Your task to perform on an android device: Go to notification settings Image 0: 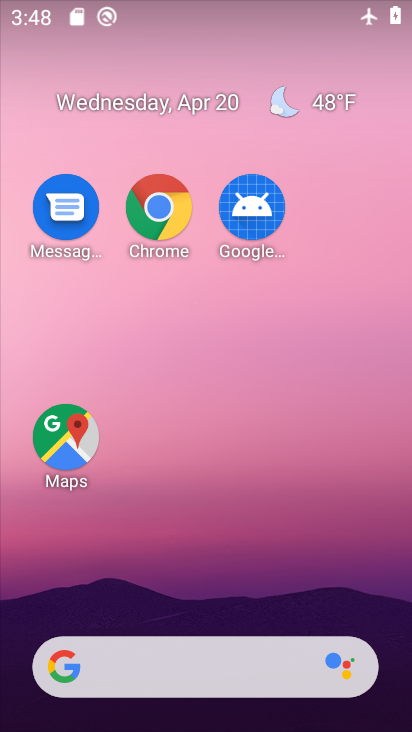
Step 0: drag from (319, 536) to (400, 36)
Your task to perform on an android device: Go to notification settings Image 1: 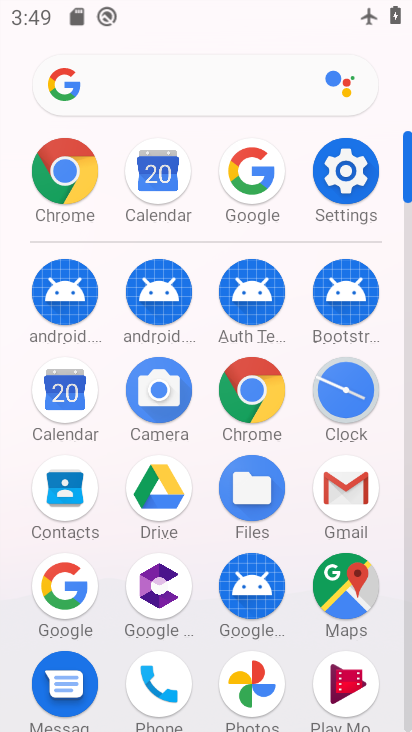
Step 1: click (343, 141)
Your task to perform on an android device: Go to notification settings Image 2: 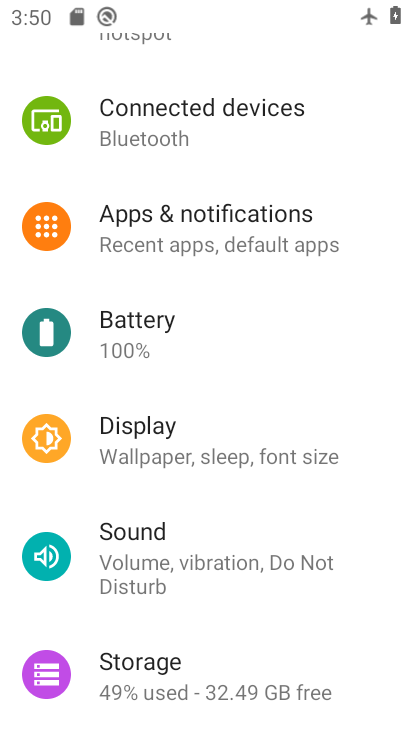
Step 2: click (301, 242)
Your task to perform on an android device: Go to notification settings Image 3: 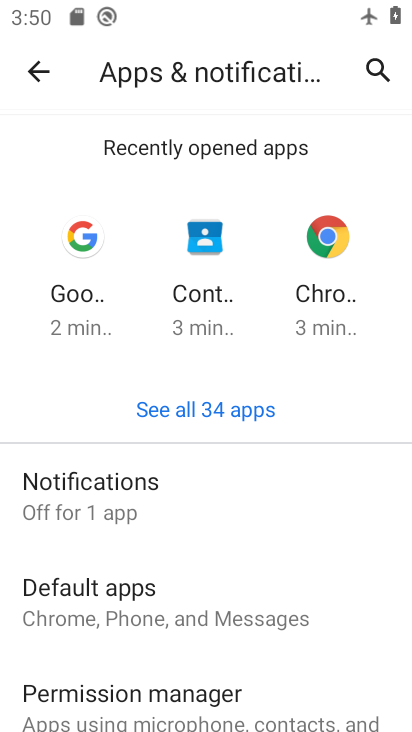
Step 3: click (197, 488)
Your task to perform on an android device: Go to notification settings Image 4: 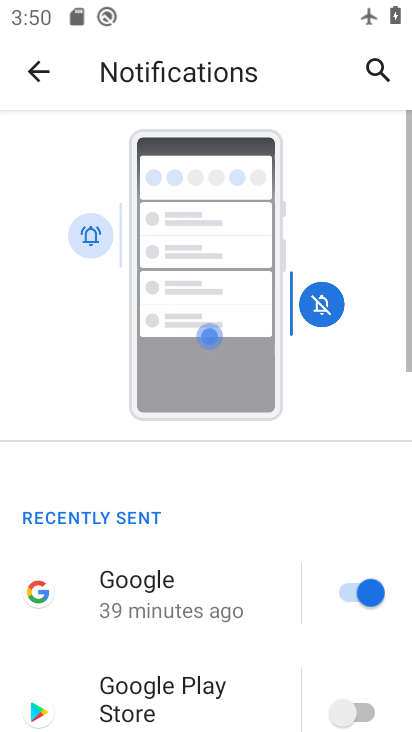
Step 4: task complete